Your task to perform on an android device: Google the capital of Mexico Image 0: 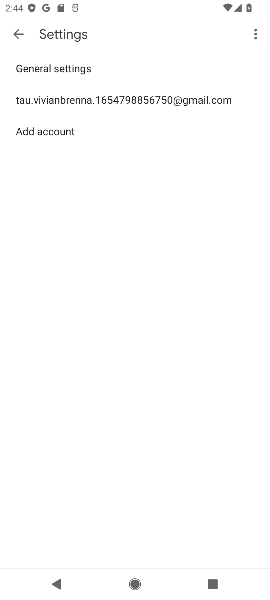
Step 0: press home button
Your task to perform on an android device: Google the capital of Mexico Image 1: 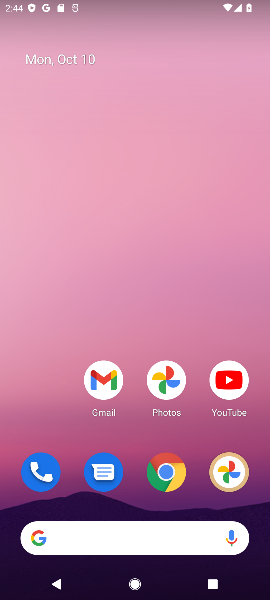
Step 1: click (91, 542)
Your task to perform on an android device: Google the capital of Mexico Image 2: 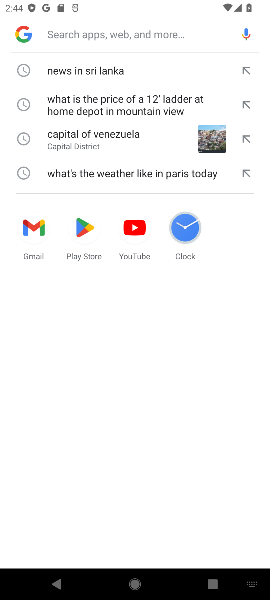
Step 2: type "the capital of Mexico"
Your task to perform on an android device: Google the capital of Mexico Image 3: 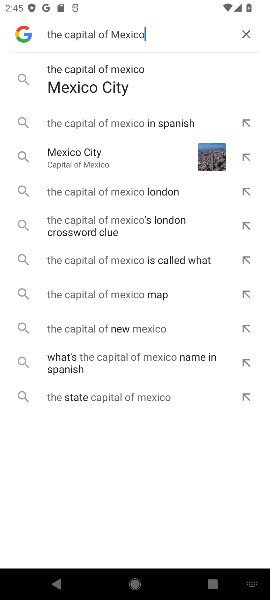
Step 3: click (128, 96)
Your task to perform on an android device: Google the capital of Mexico Image 4: 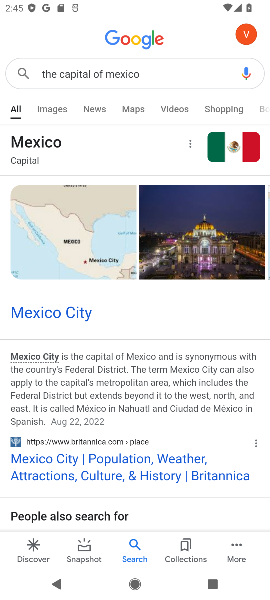
Step 4: task complete